Your task to perform on an android device: Open the map Image 0: 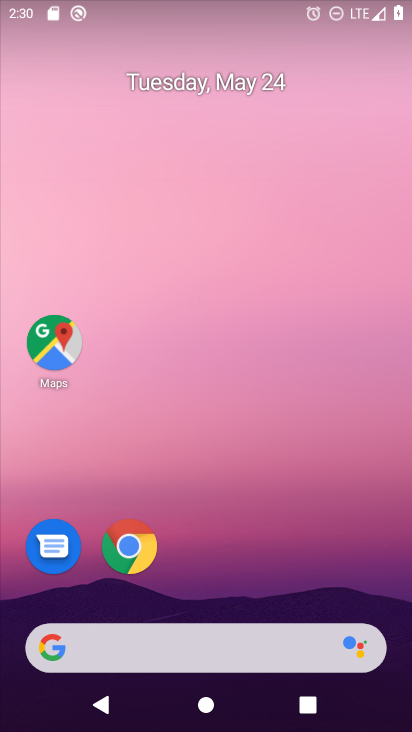
Step 0: drag from (319, 624) to (338, 70)
Your task to perform on an android device: Open the map Image 1: 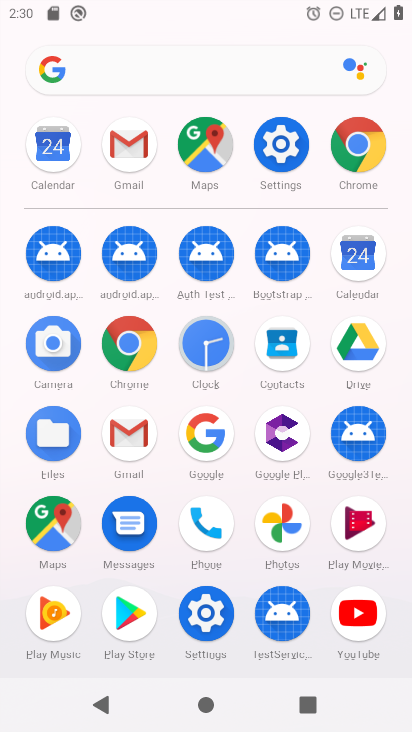
Step 1: click (40, 524)
Your task to perform on an android device: Open the map Image 2: 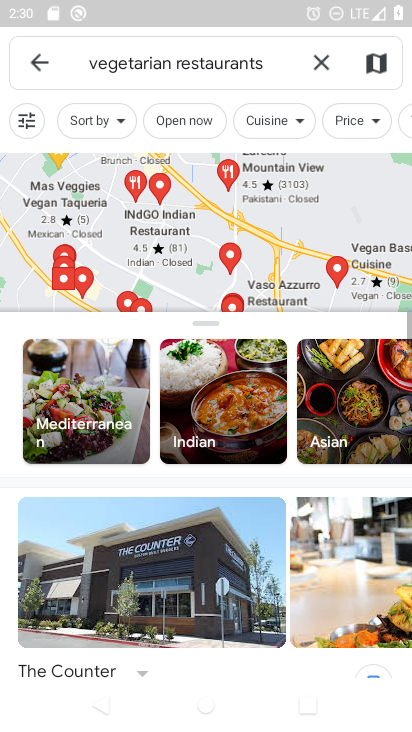
Step 2: task complete